Your task to perform on an android device: find which apps use the phone's location Image 0: 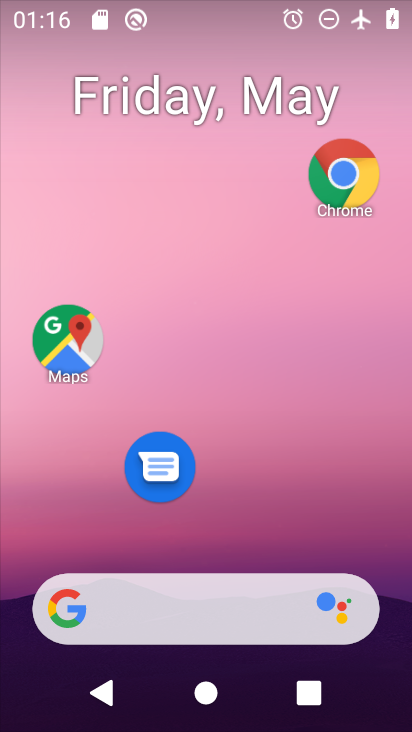
Step 0: drag from (261, 463) to (250, 172)
Your task to perform on an android device: find which apps use the phone's location Image 1: 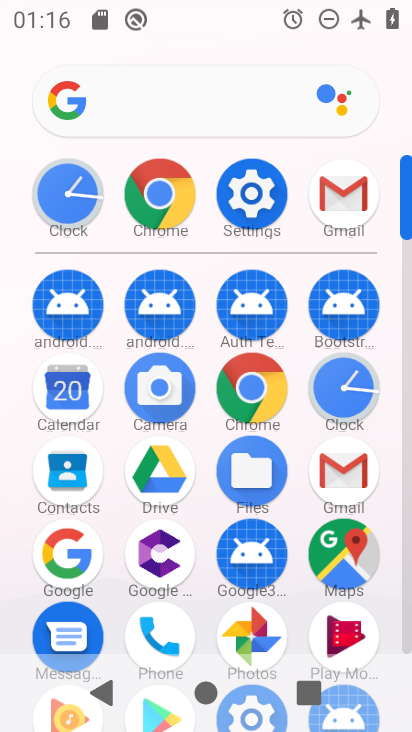
Step 1: click (250, 190)
Your task to perform on an android device: find which apps use the phone's location Image 2: 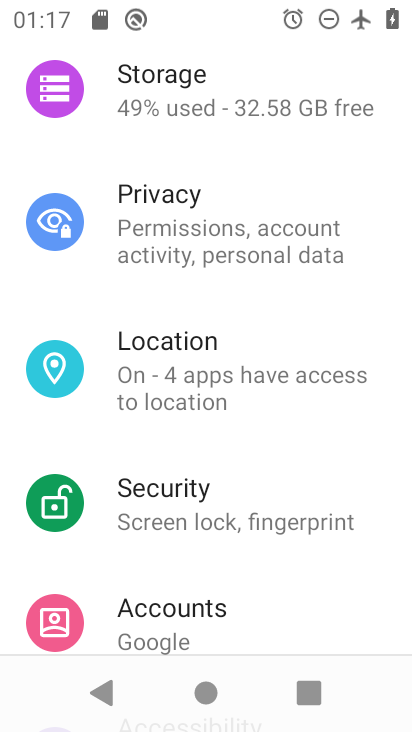
Step 2: click (207, 375)
Your task to perform on an android device: find which apps use the phone's location Image 3: 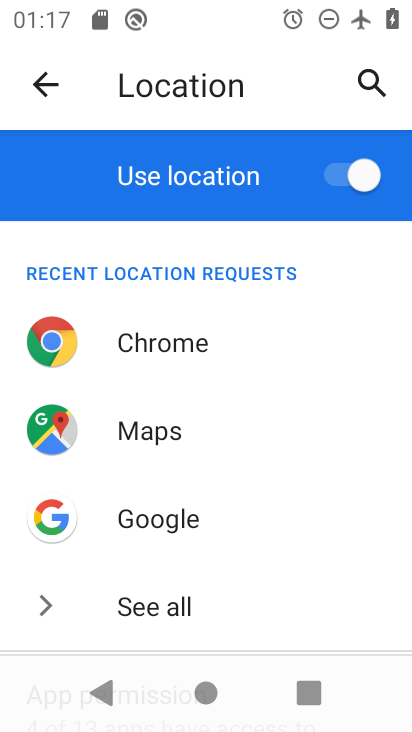
Step 3: task complete